Your task to perform on an android device: Open calendar and show me the first week of next month Image 0: 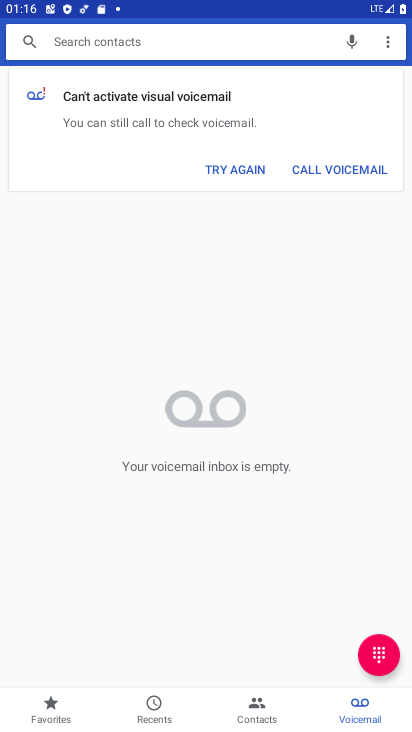
Step 0: press home button
Your task to perform on an android device: Open calendar and show me the first week of next month Image 1: 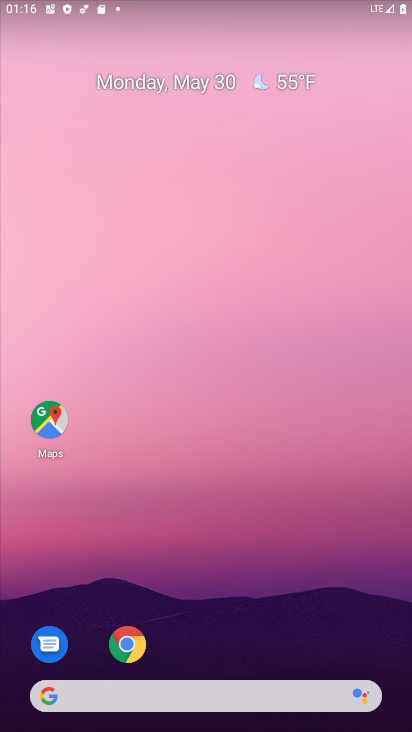
Step 1: drag from (313, 575) to (301, 107)
Your task to perform on an android device: Open calendar and show me the first week of next month Image 2: 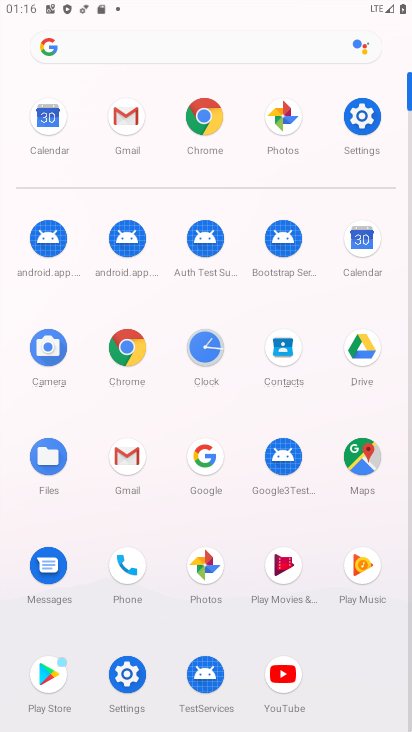
Step 2: click (361, 246)
Your task to perform on an android device: Open calendar and show me the first week of next month Image 3: 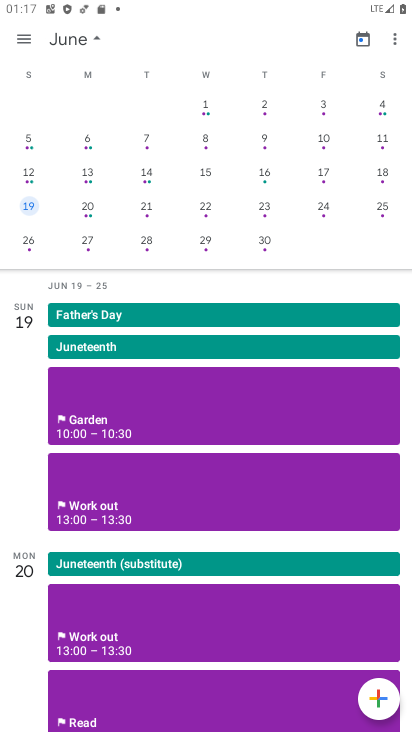
Step 3: click (212, 108)
Your task to perform on an android device: Open calendar and show me the first week of next month Image 4: 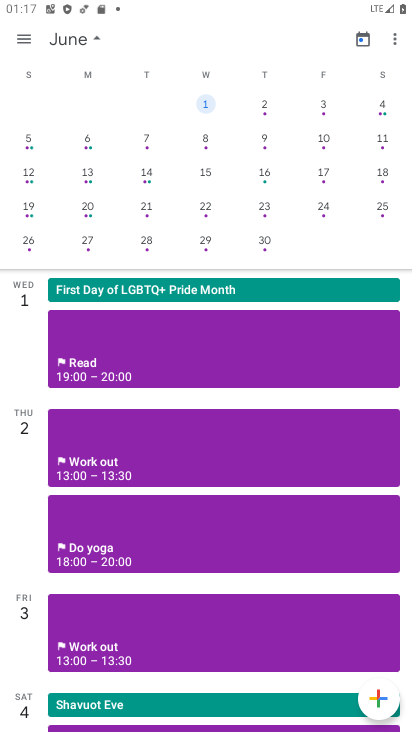
Step 4: task complete